Your task to perform on an android device: turn off sleep mode Image 0: 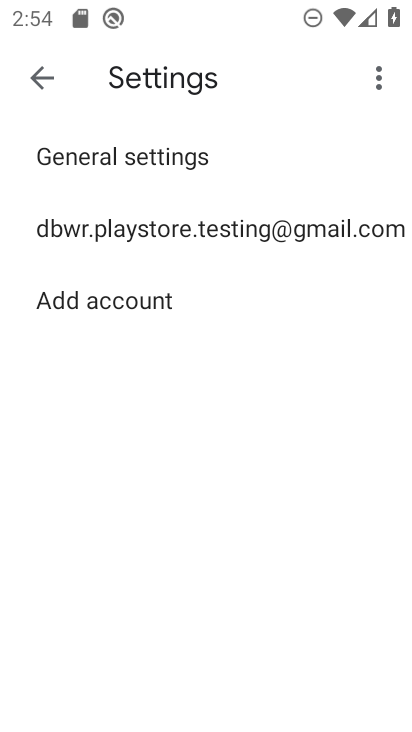
Step 0: press home button
Your task to perform on an android device: turn off sleep mode Image 1: 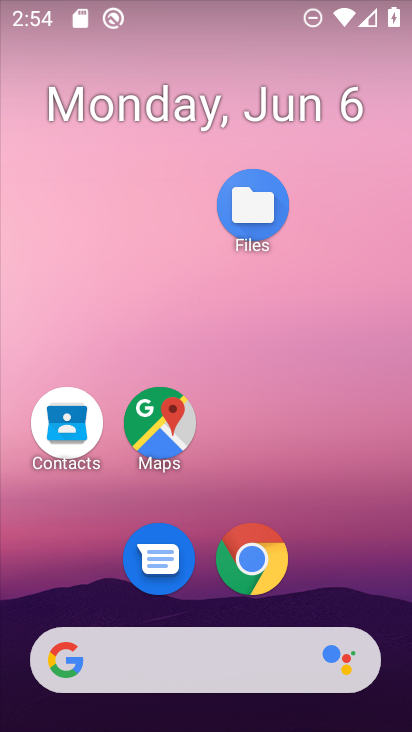
Step 1: drag from (203, 580) to (247, 88)
Your task to perform on an android device: turn off sleep mode Image 2: 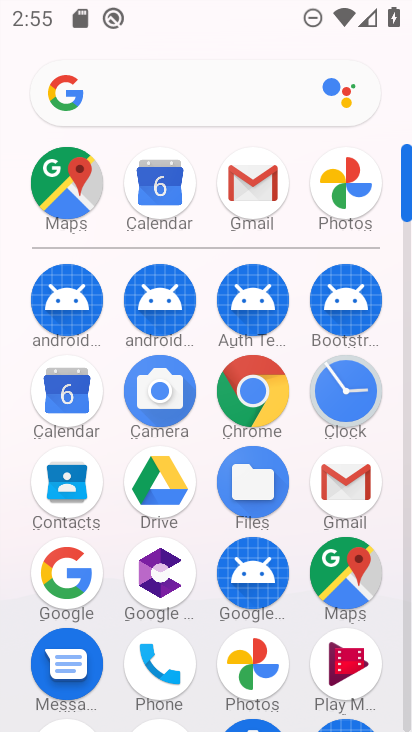
Step 2: drag from (240, 331) to (270, 108)
Your task to perform on an android device: turn off sleep mode Image 3: 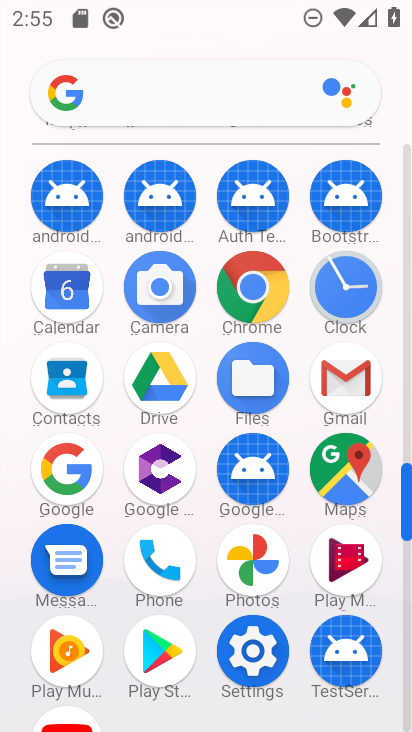
Step 3: click (257, 652)
Your task to perform on an android device: turn off sleep mode Image 4: 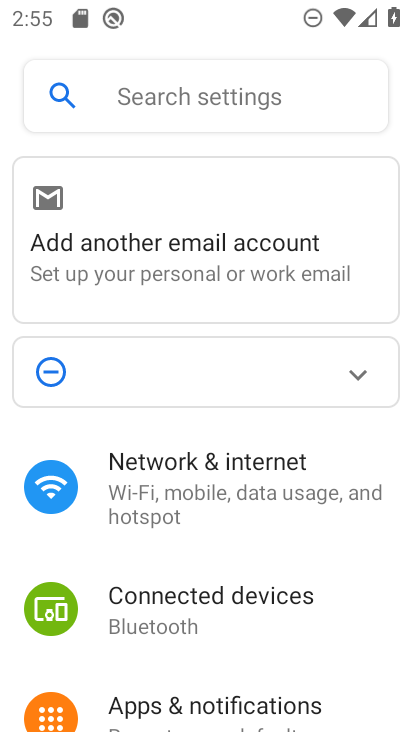
Step 4: drag from (251, 606) to (278, 169)
Your task to perform on an android device: turn off sleep mode Image 5: 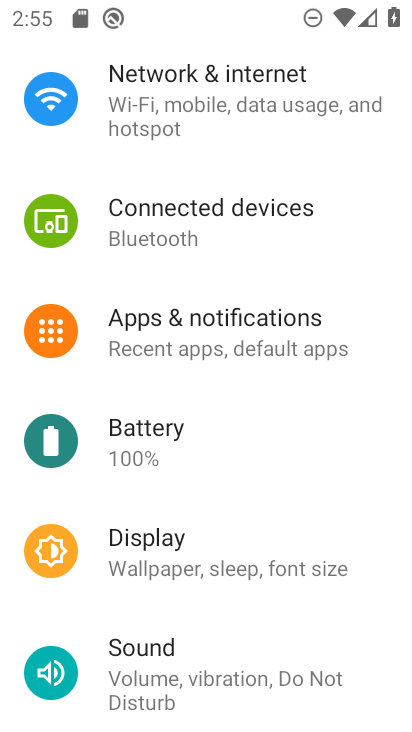
Step 5: click (224, 568)
Your task to perform on an android device: turn off sleep mode Image 6: 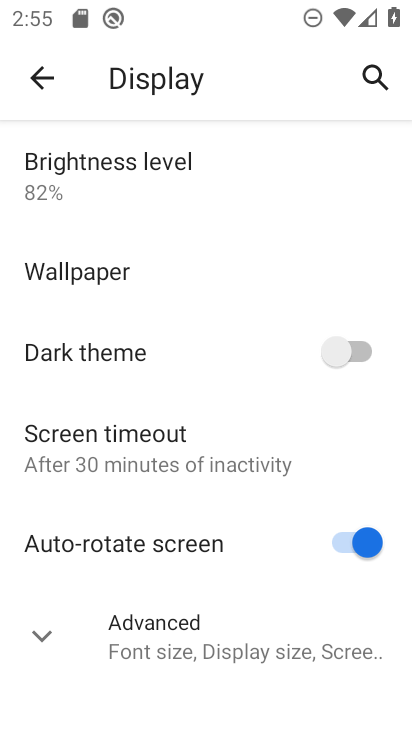
Step 6: click (232, 648)
Your task to perform on an android device: turn off sleep mode Image 7: 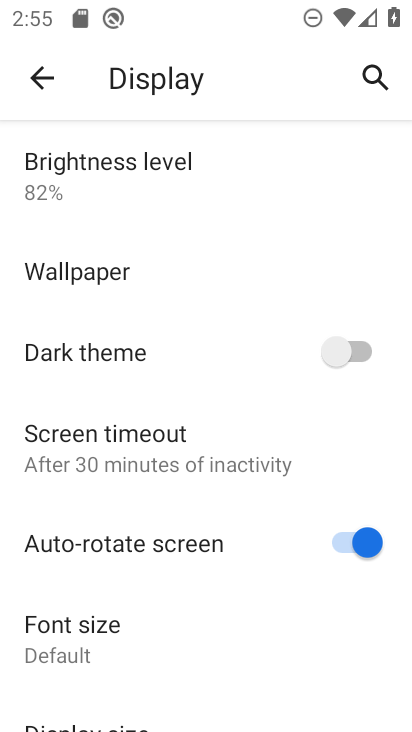
Step 7: task complete